Your task to perform on an android device: manage bookmarks in the chrome app Image 0: 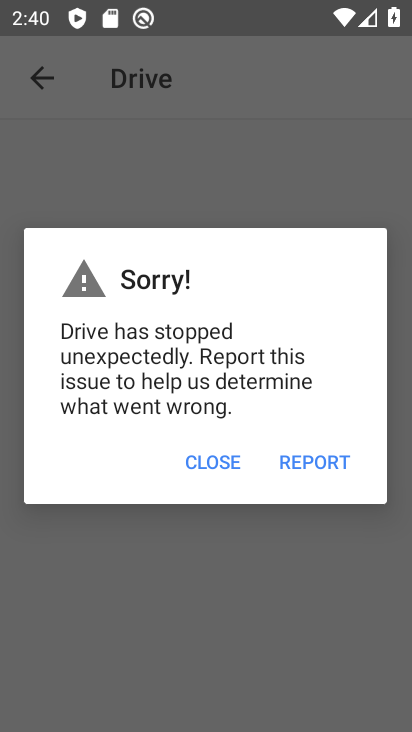
Step 0: press home button
Your task to perform on an android device: manage bookmarks in the chrome app Image 1: 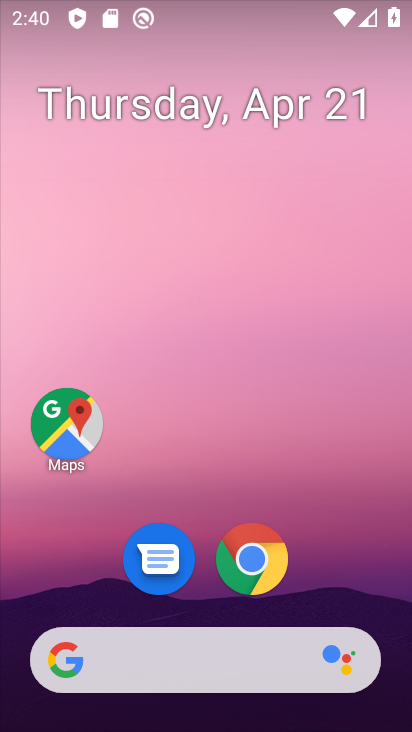
Step 1: click (257, 563)
Your task to perform on an android device: manage bookmarks in the chrome app Image 2: 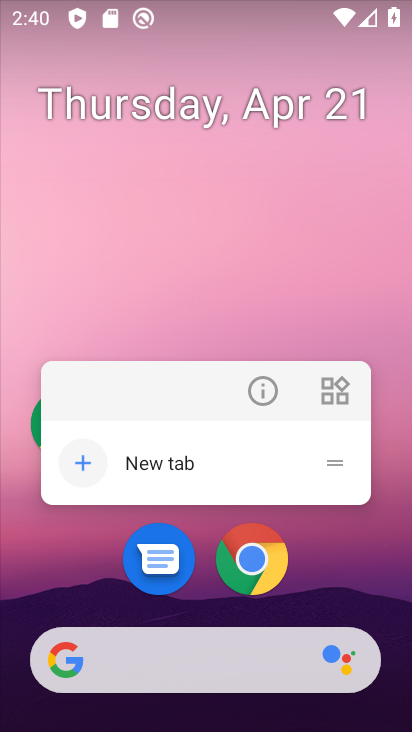
Step 2: click (256, 563)
Your task to perform on an android device: manage bookmarks in the chrome app Image 3: 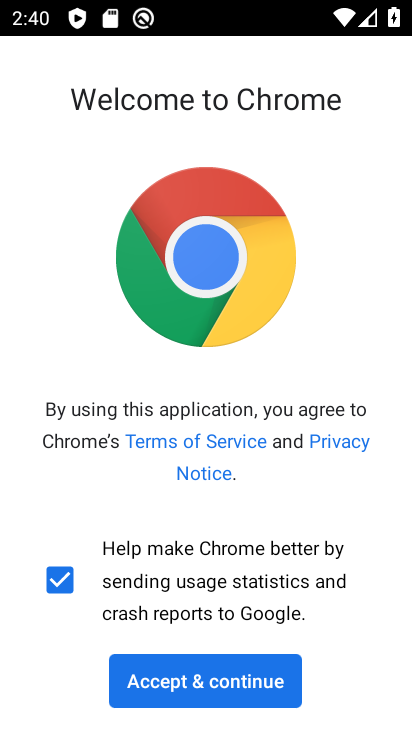
Step 3: click (230, 684)
Your task to perform on an android device: manage bookmarks in the chrome app Image 4: 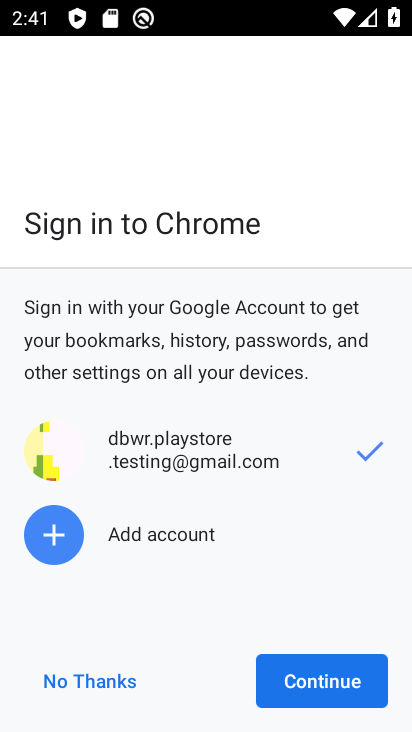
Step 4: click (272, 682)
Your task to perform on an android device: manage bookmarks in the chrome app Image 5: 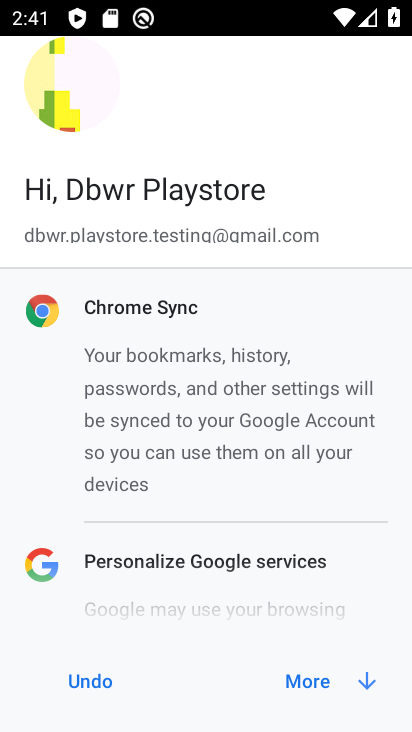
Step 5: click (365, 681)
Your task to perform on an android device: manage bookmarks in the chrome app Image 6: 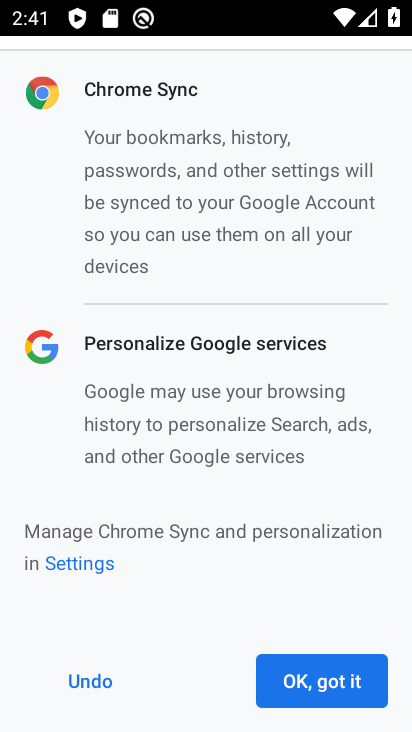
Step 6: click (341, 683)
Your task to perform on an android device: manage bookmarks in the chrome app Image 7: 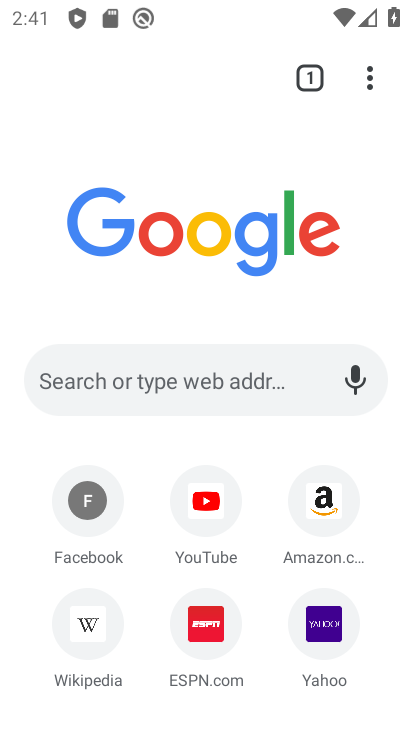
Step 7: click (365, 72)
Your task to perform on an android device: manage bookmarks in the chrome app Image 8: 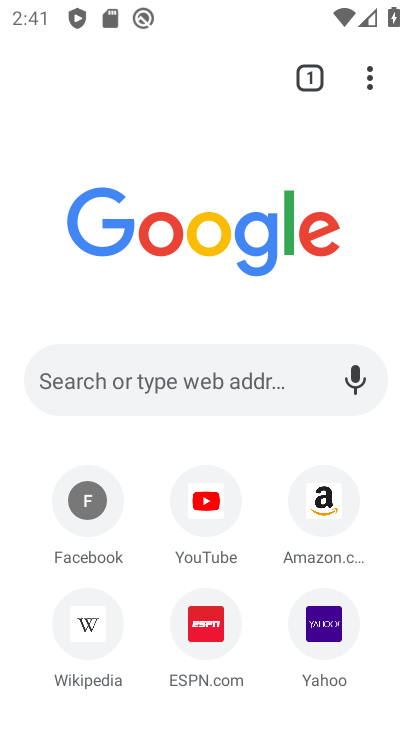
Step 8: click (373, 75)
Your task to perform on an android device: manage bookmarks in the chrome app Image 9: 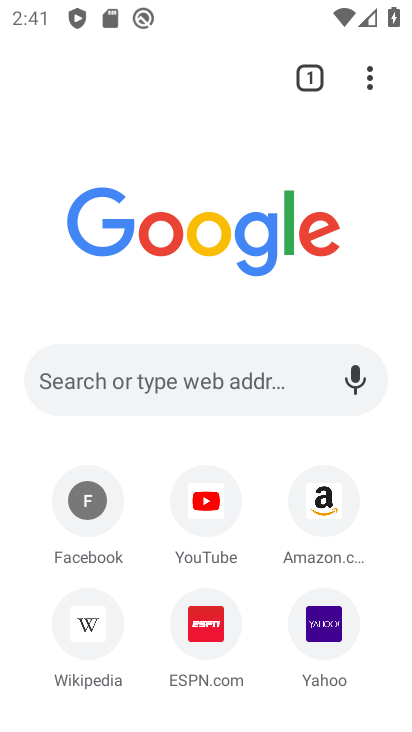
Step 9: click (365, 79)
Your task to perform on an android device: manage bookmarks in the chrome app Image 10: 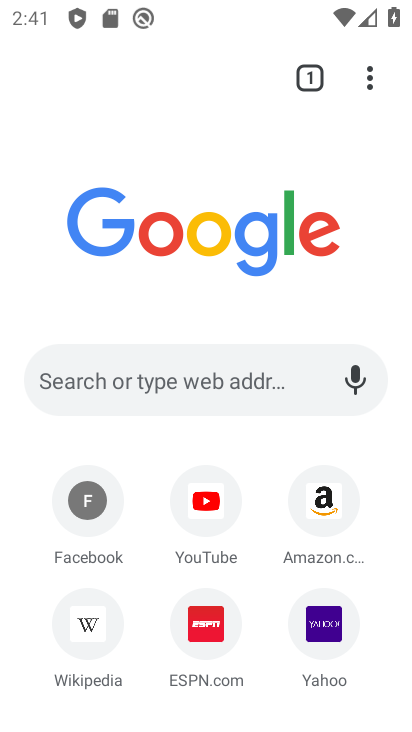
Step 10: click (365, 79)
Your task to perform on an android device: manage bookmarks in the chrome app Image 11: 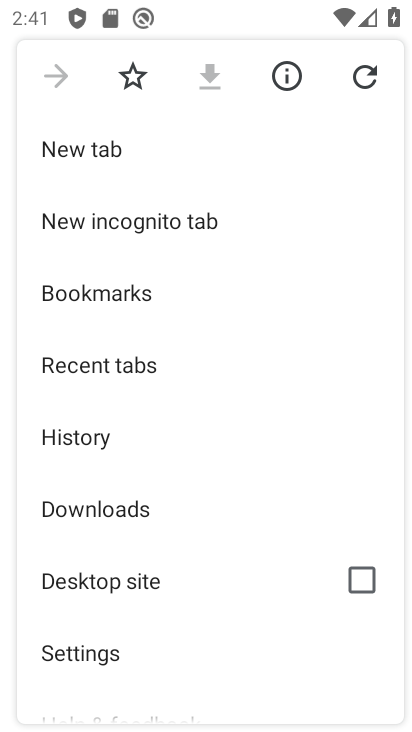
Step 11: click (100, 294)
Your task to perform on an android device: manage bookmarks in the chrome app Image 12: 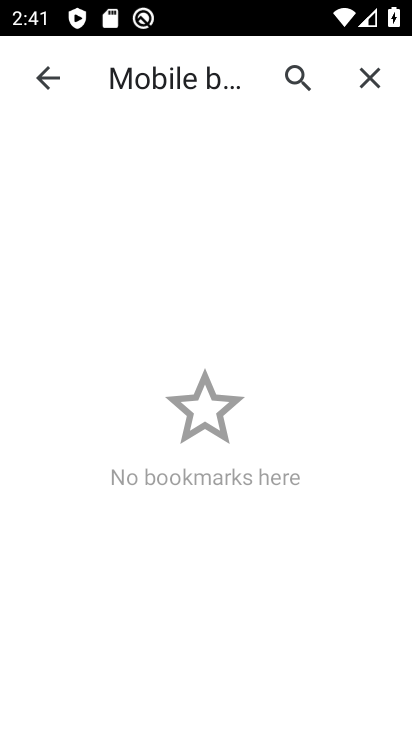
Step 12: task complete